Your task to perform on an android device: change the clock style Image 0: 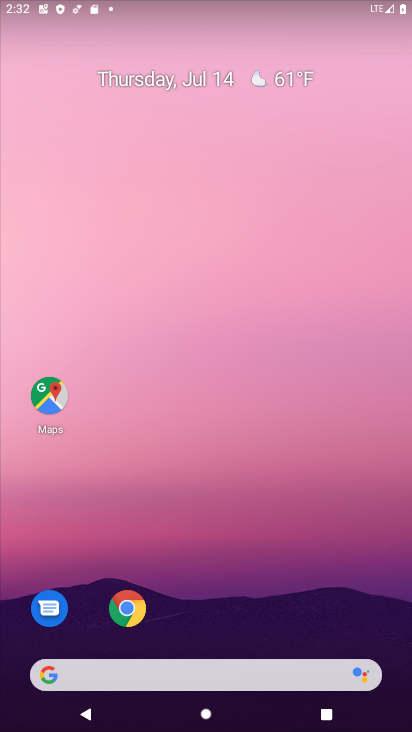
Step 0: drag from (281, 657) to (281, 222)
Your task to perform on an android device: change the clock style Image 1: 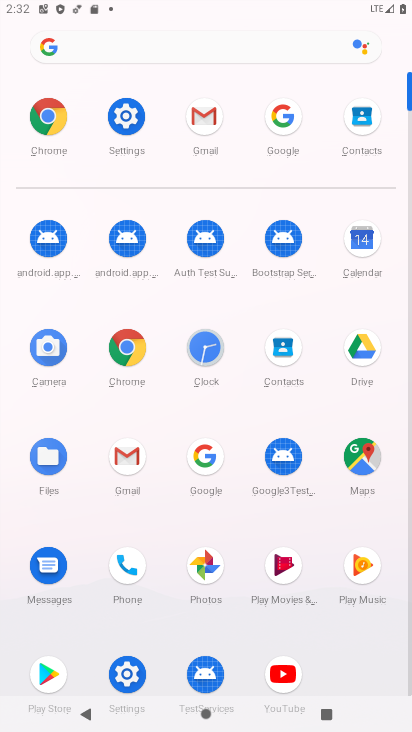
Step 1: click (209, 357)
Your task to perform on an android device: change the clock style Image 2: 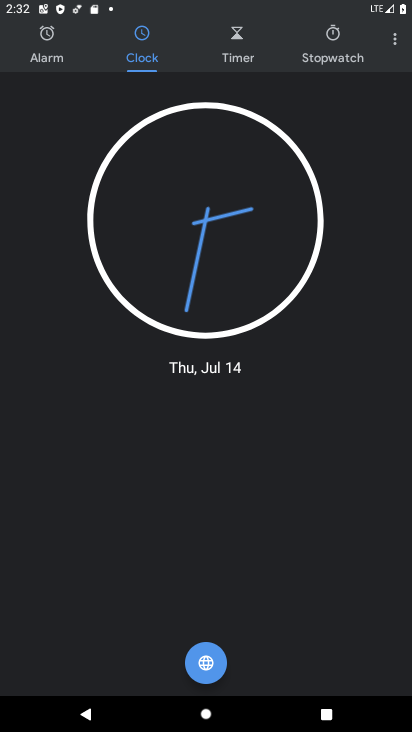
Step 2: click (400, 39)
Your task to perform on an android device: change the clock style Image 3: 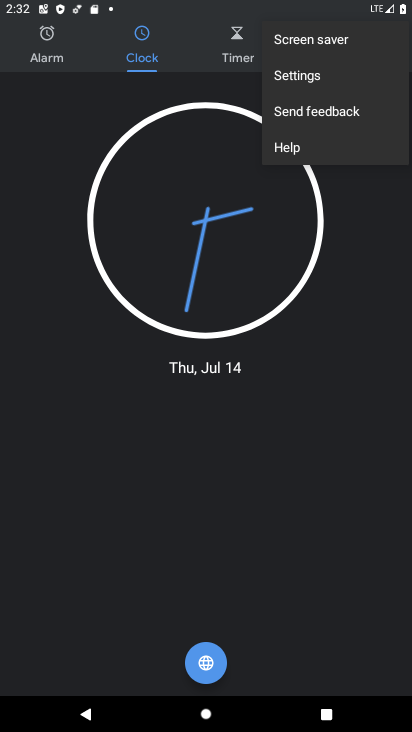
Step 3: click (300, 84)
Your task to perform on an android device: change the clock style Image 4: 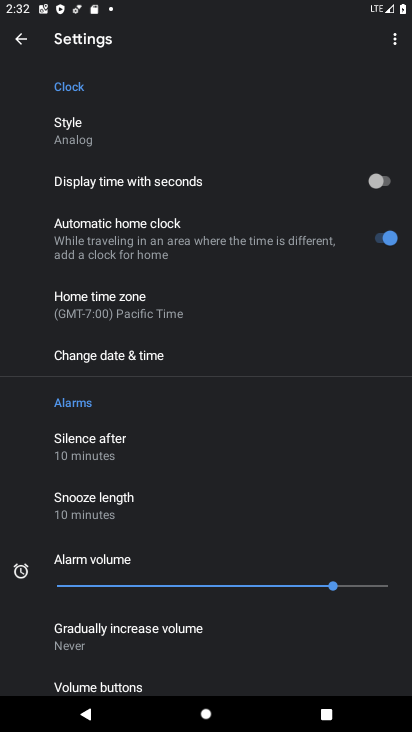
Step 4: click (66, 133)
Your task to perform on an android device: change the clock style Image 5: 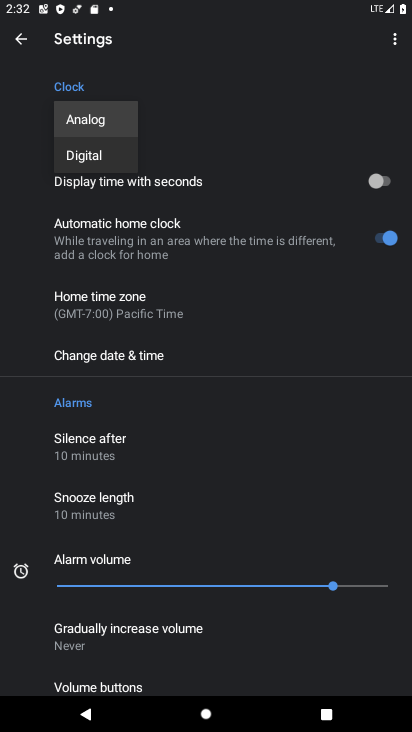
Step 5: click (74, 160)
Your task to perform on an android device: change the clock style Image 6: 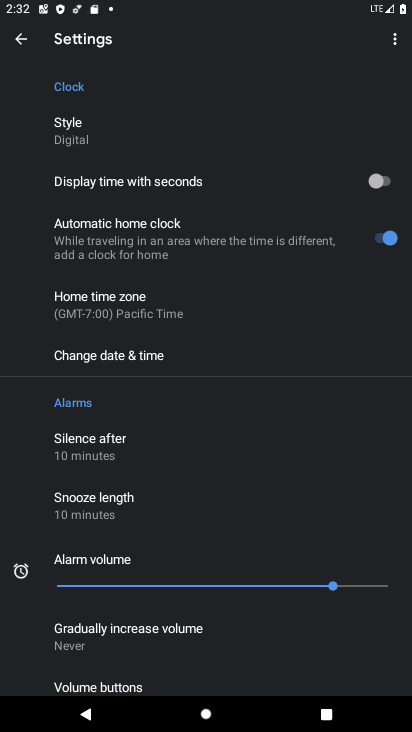
Step 6: task complete